Your task to perform on an android device: turn on notifications settings in the gmail app Image 0: 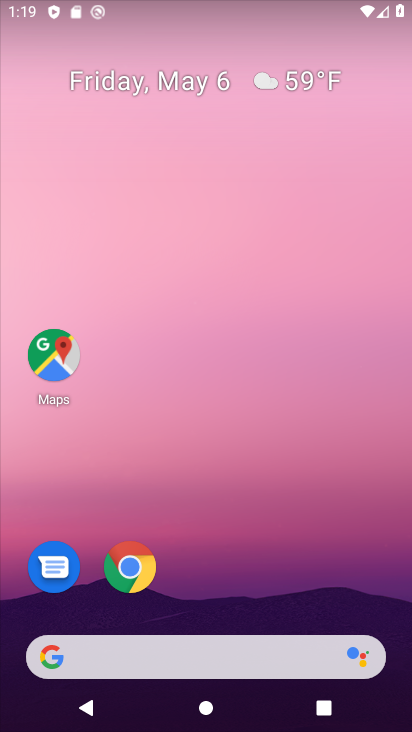
Step 0: drag from (266, 589) to (226, 65)
Your task to perform on an android device: turn on notifications settings in the gmail app Image 1: 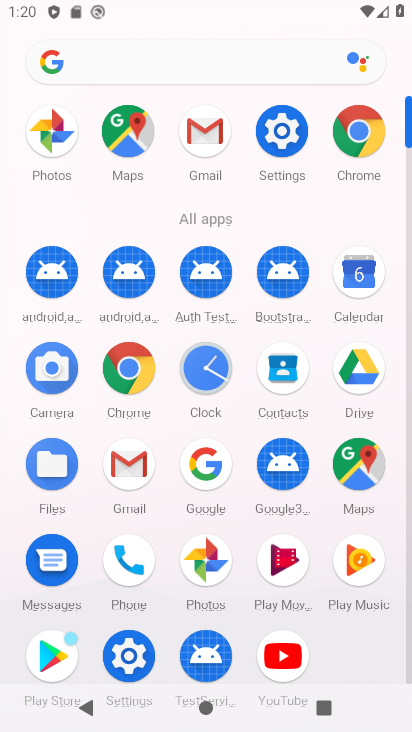
Step 1: click (137, 478)
Your task to perform on an android device: turn on notifications settings in the gmail app Image 2: 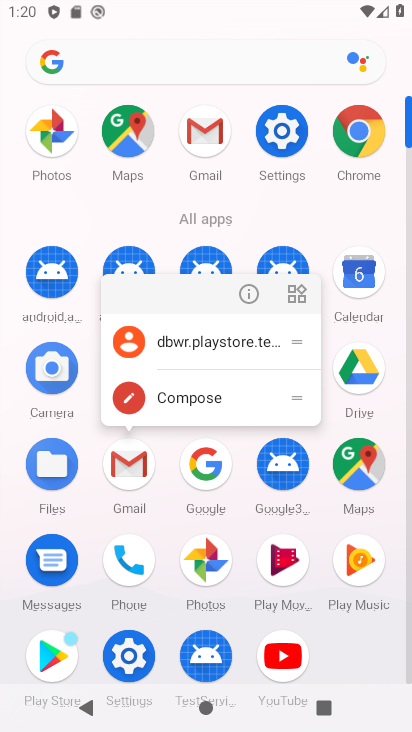
Step 2: click (254, 292)
Your task to perform on an android device: turn on notifications settings in the gmail app Image 3: 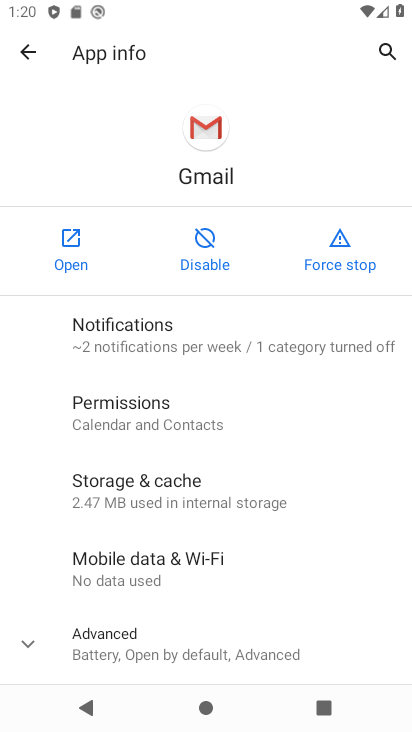
Step 3: click (188, 344)
Your task to perform on an android device: turn on notifications settings in the gmail app Image 4: 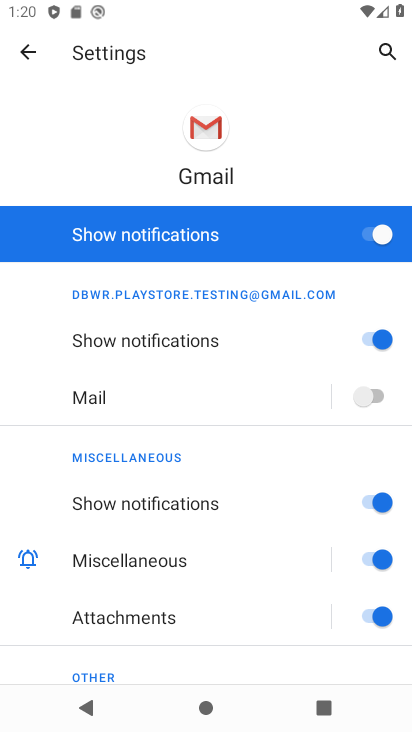
Step 4: click (361, 396)
Your task to perform on an android device: turn on notifications settings in the gmail app Image 5: 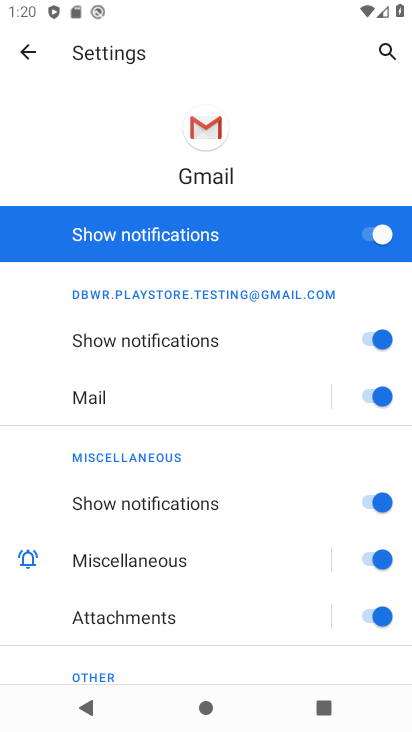
Step 5: task complete